Your task to perform on an android device: change the clock style Image 0: 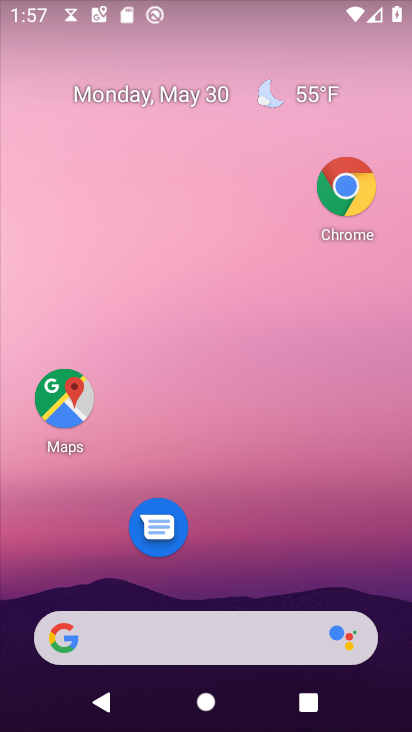
Step 0: drag from (240, 587) to (249, 240)
Your task to perform on an android device: change the clock style Image 1: 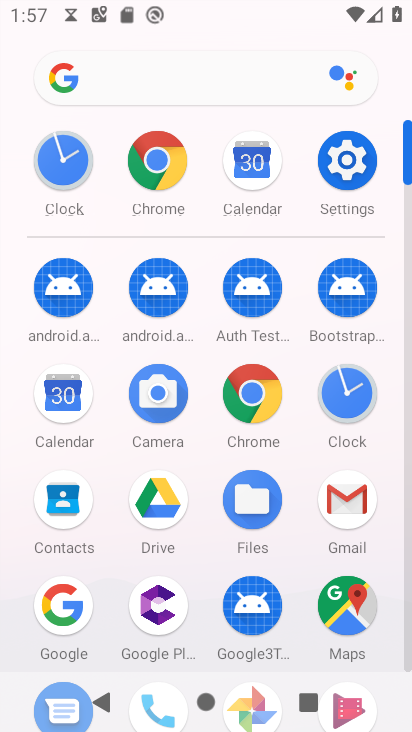
Step 1: click (357, 377)
Your task to perform on an android device: change the clock style Image 2: 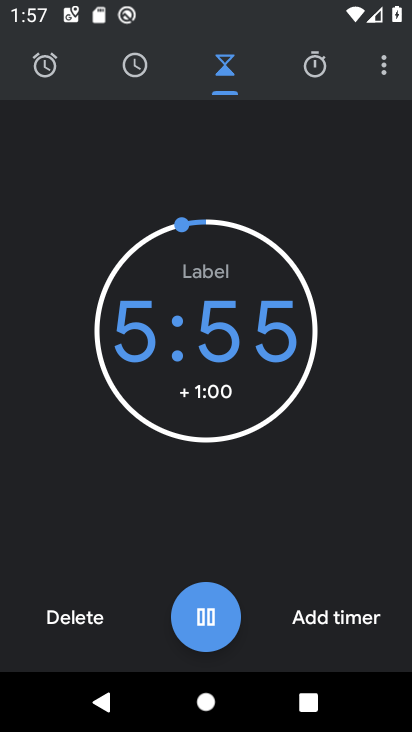
Step 2: click (93, 617)
Your task to perform on an android device: change the clock style Image 3: 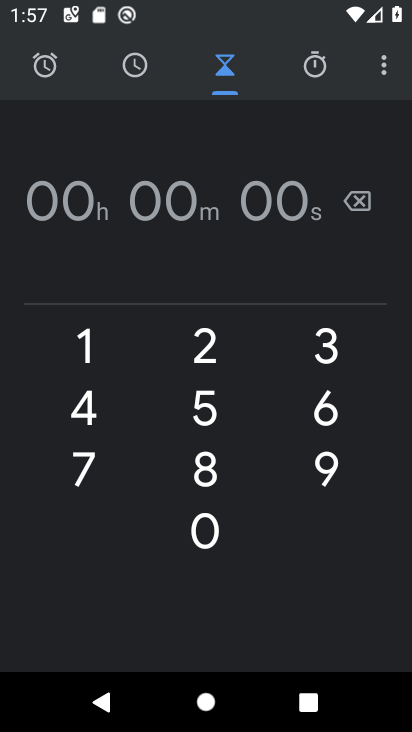
Step 3: click (314, 53)
Your task to perform on an android device: change the clock style Image 4: 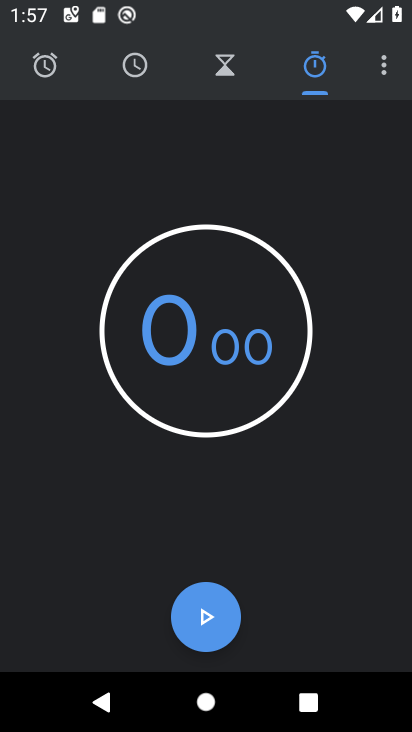
Step 4: click (390, 64)
Your task to perform on an android device: change the clock style Image 5: 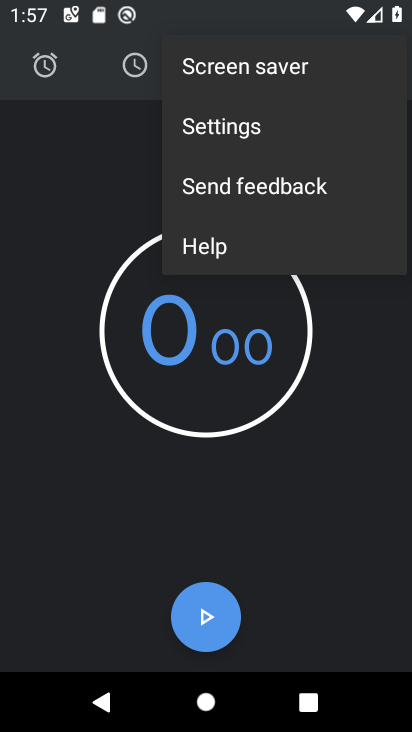
Step 5: click (273, 117)
Your task to perform on an android device: change the clock style Image 6: 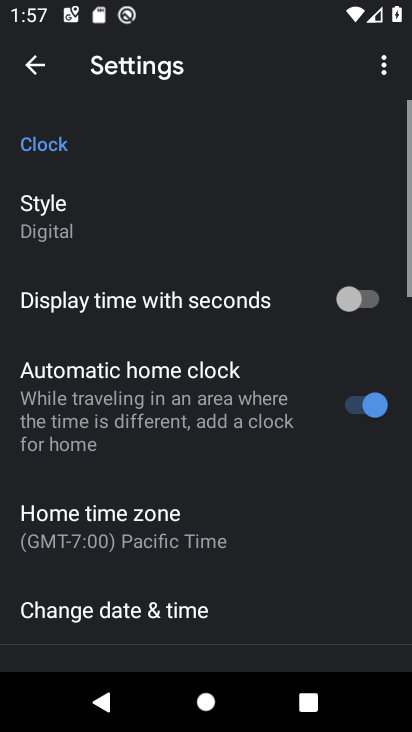
Step 6: click (73, 226)
Your task to perform on an android device: change the clock style Image 7: 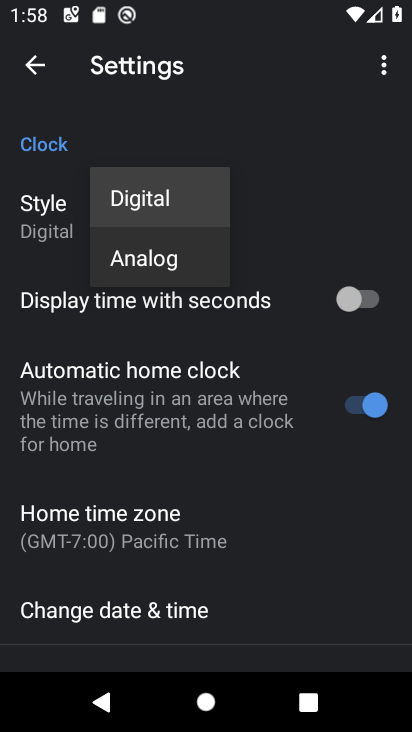
Step 7: click (166, 249)
Your task to perform on an android device: change the clock style Image 8: 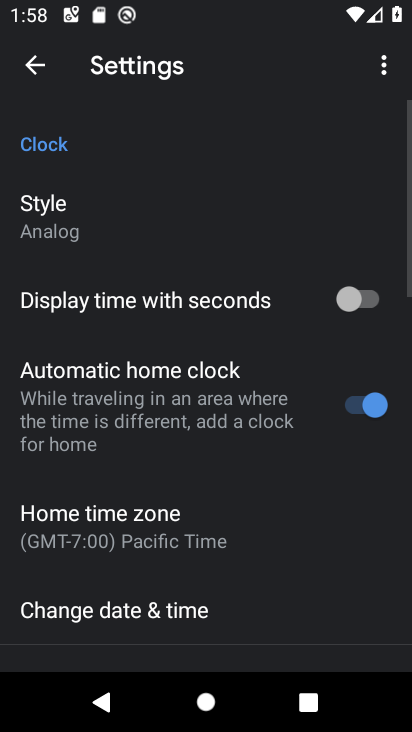
Step 8: task complete